Your task to perform on an android device: set an alarm Image 0: 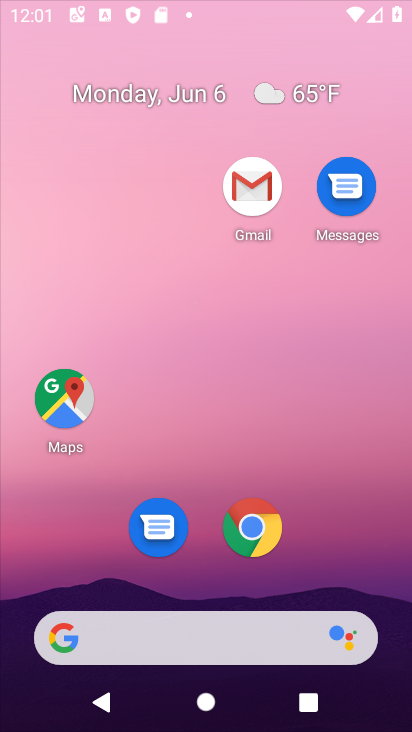
Step 0: click (349, 459)
Your task to perform on an android device: set an alarm Image 1: 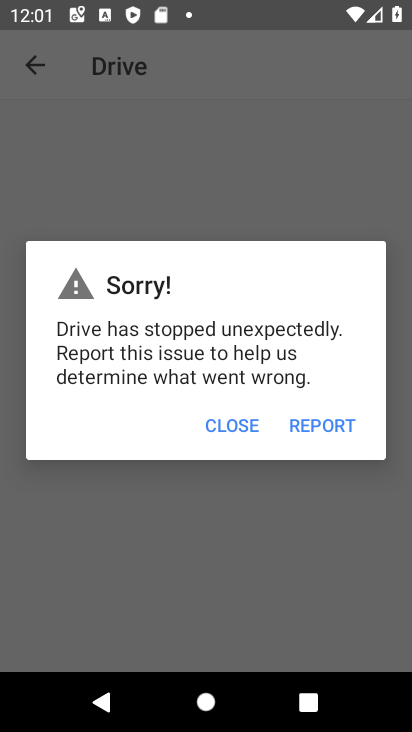
Step 1: press home button
Your task to perform on an android device: set an alarm Image 2: 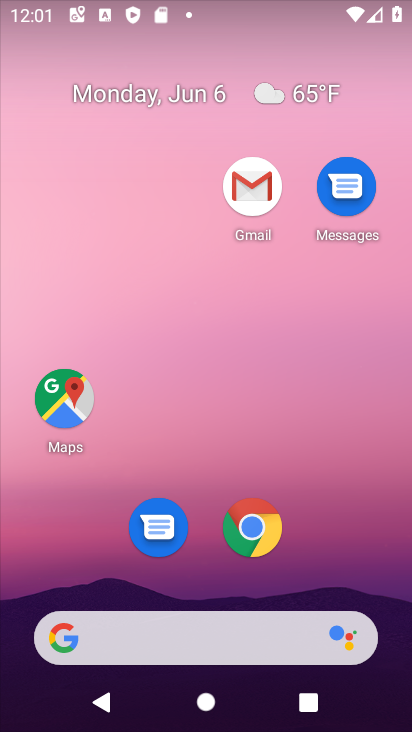
Step 2: drag from (321, 566) to (254, 93)
Your task to perform on an android device: set an alarm Image 3: 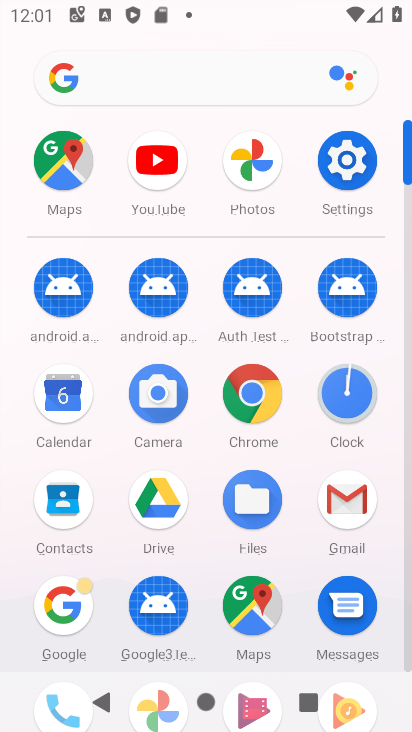
Step 3: click (347, 392)
Your task to perform on an android device: set an alarm Image 4: 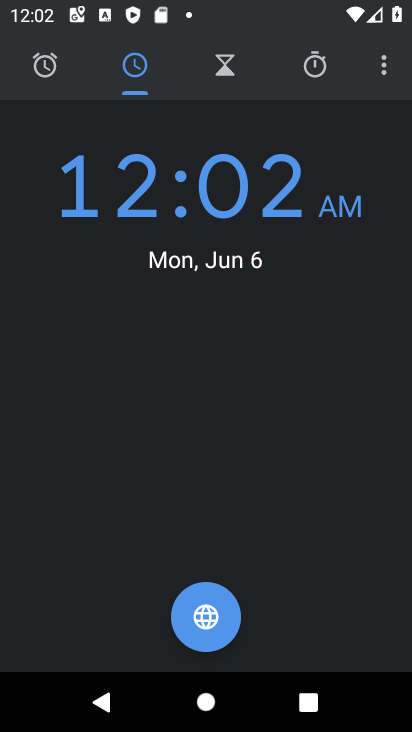
Step 4: click (31, 66)
Your task to perform on an android device: set an alarm Image 5: 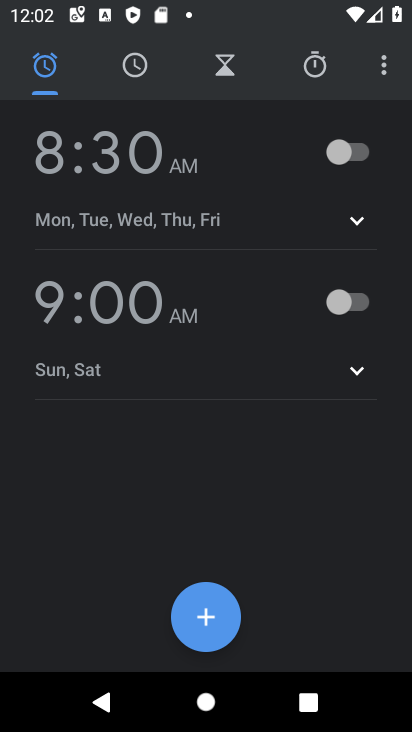
Step 5: click (364, 162)
Your task to perform on an android device: set an alarm Image 6: 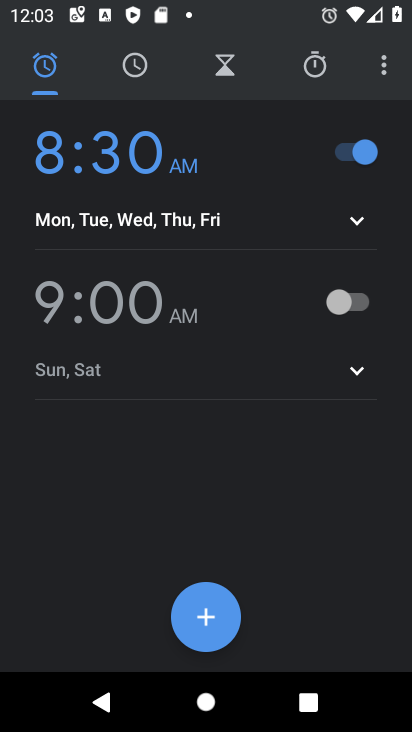
Step 6: task complete